Your task to perform on an android device: check out phone information Image 0: 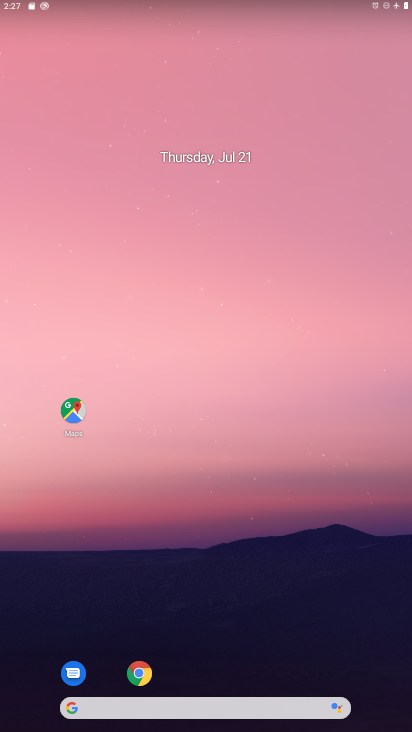
Step 0: drag from (173, 664) to (159, 375)
Your task to perform on an android device: check out phone information Image 1: 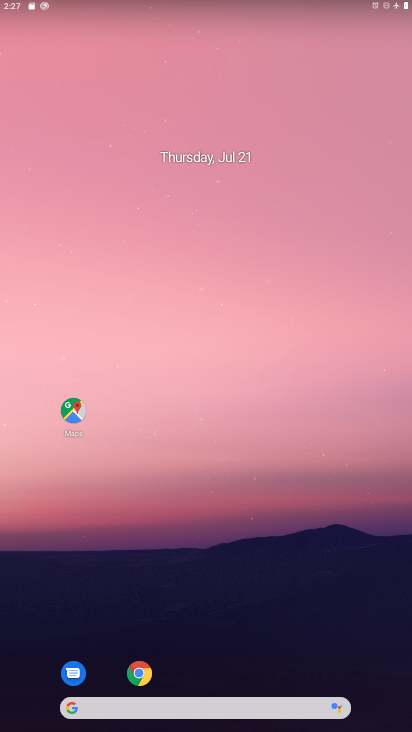
Step 1: drag from (223, 682) to (218, 326)
Your task to perform on an android device: check out phone information Image 2: 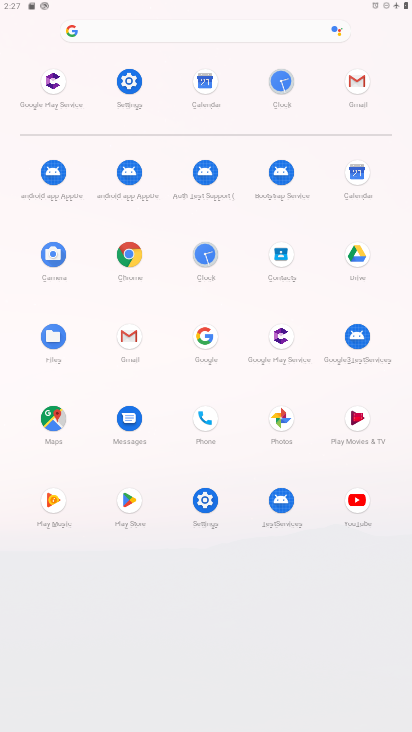
Step 2: click (122, 76)
Your task to perform on an android device: check out phone information Image 3: 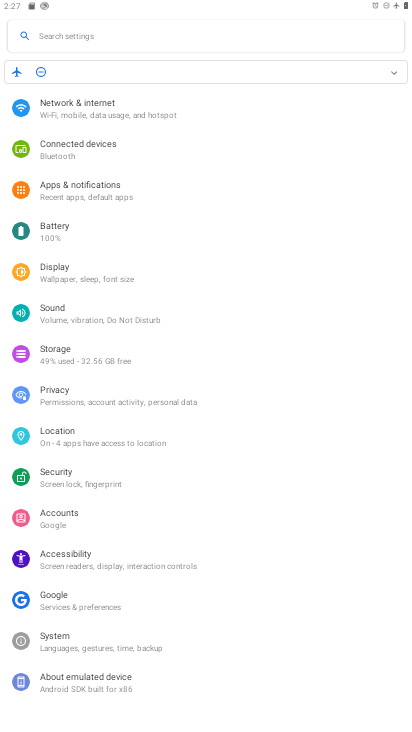
Step 3: click (98, 691)
Your task to perform on an android device: check out phone information Image 4: 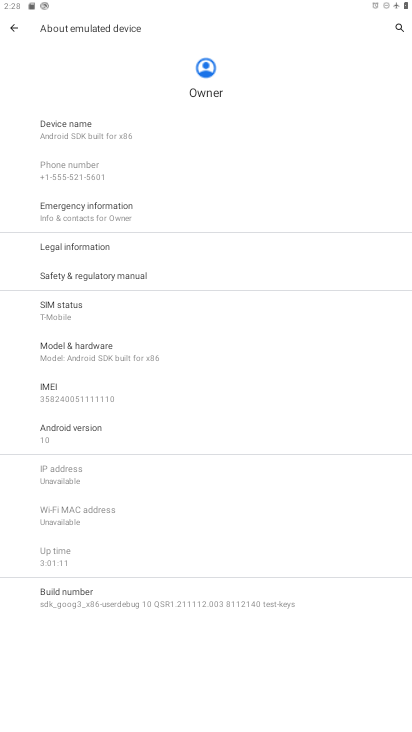
Step 4: task complete